Your task to perform on an android device: Search for the best lawnmowers on Lowes.com Image 0: 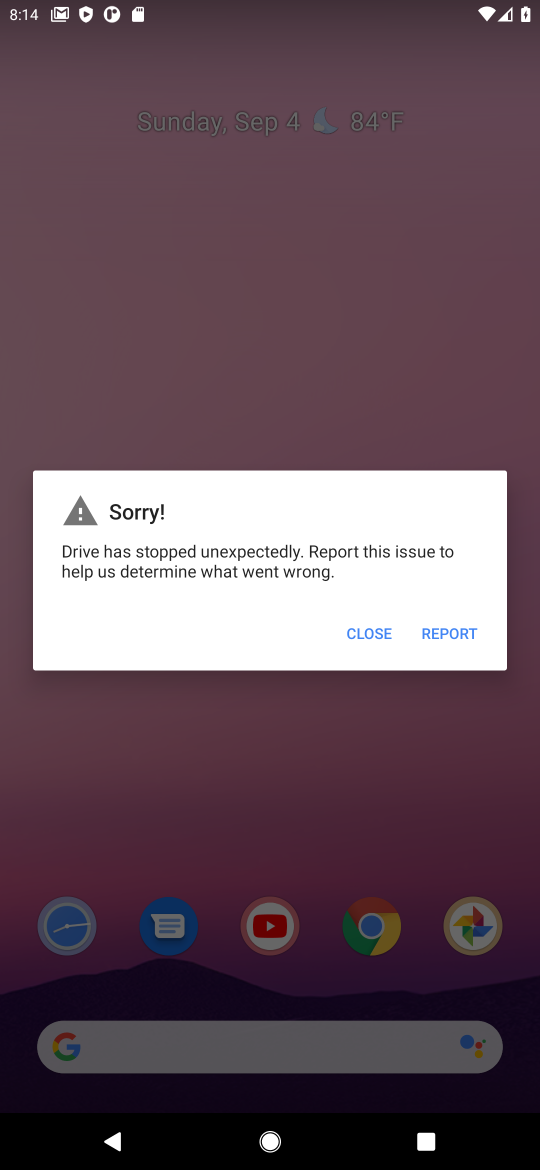
Step 0: press home button
Your task to perform on an android device: Search for the best lawnmowers on Lowes.com Image 1: 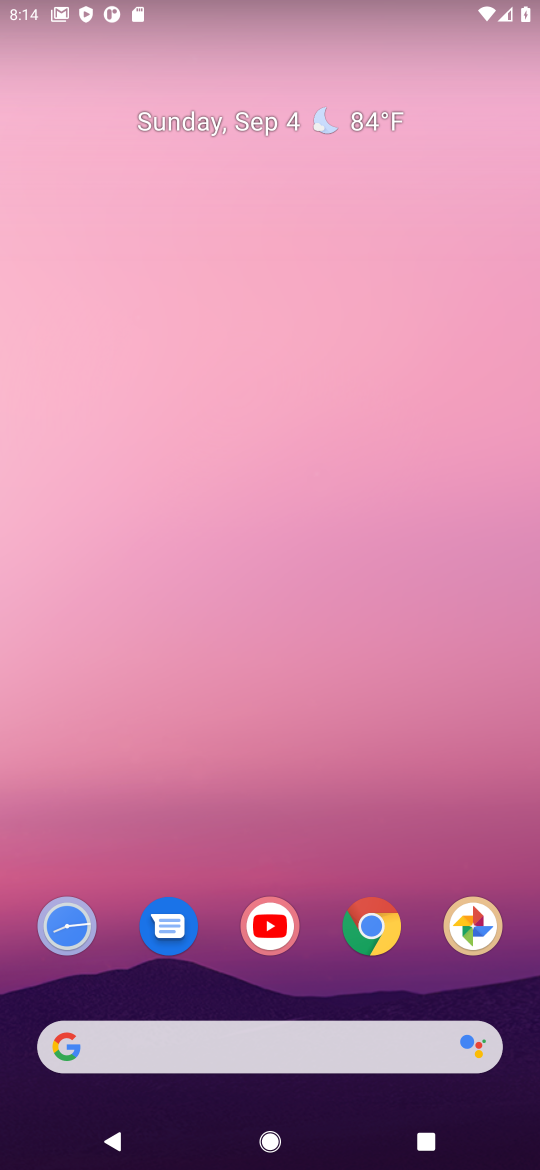
Step 1: click (202, 1054)
Your task to perform on an android device: Search for the best lawnmowers on Lowes.com Image 2: 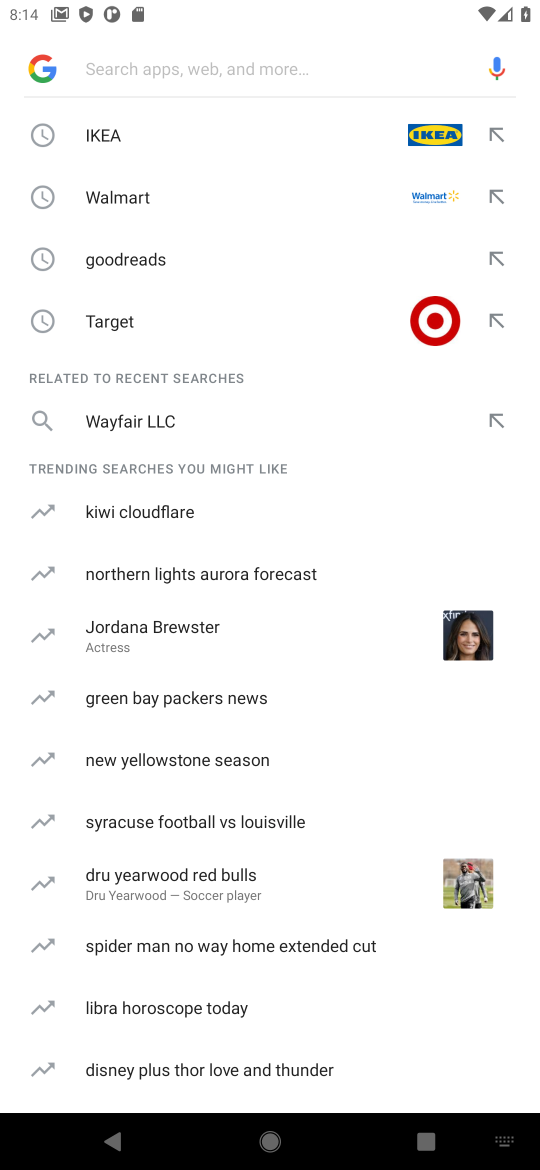
Step 2: type "lowes.com"
Your task to perform on an android device: Search for the best lawnmowers on Lowes.com Image 3: 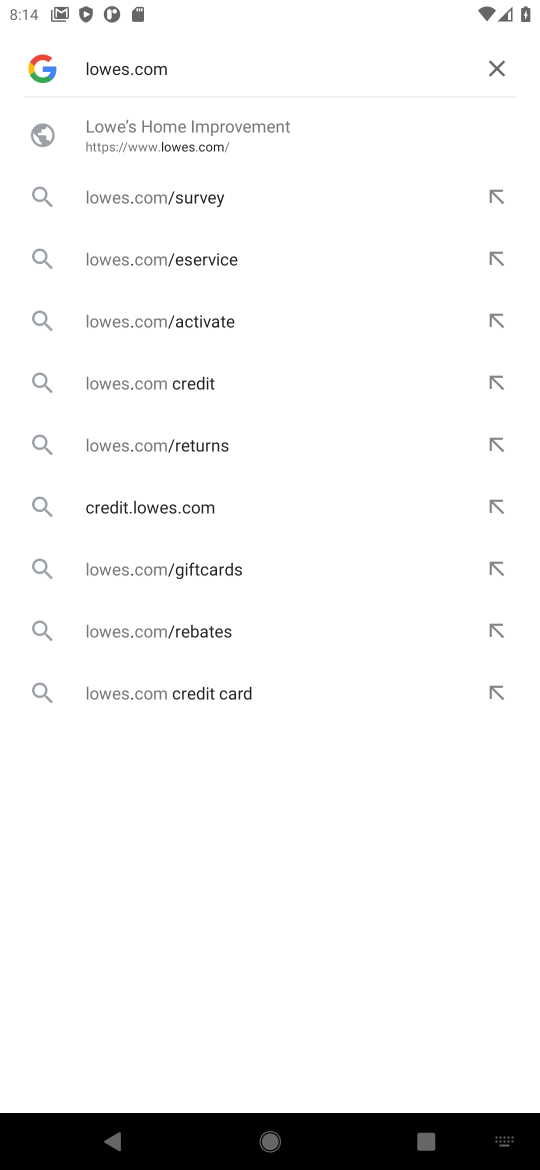
Step 3: click (185, 128)
Your task to perform on an android device: Search for the best lawnmowers on Lowes.com Image 4: 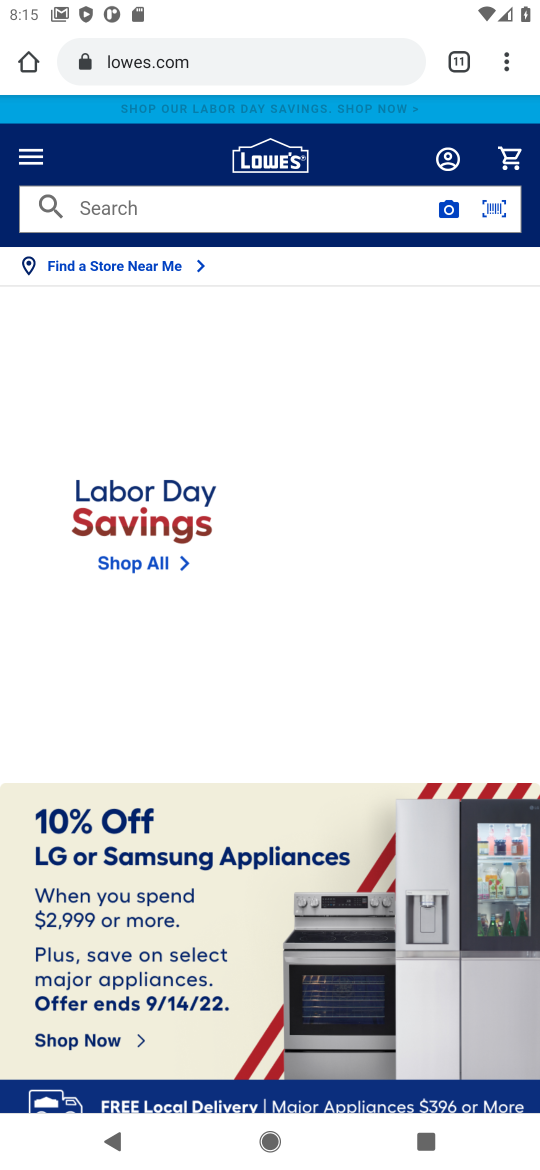
Step 4: click (179, 208)
Your task to perform on an android device: Search for the best lawnmowers on Lowes.com Image 5: 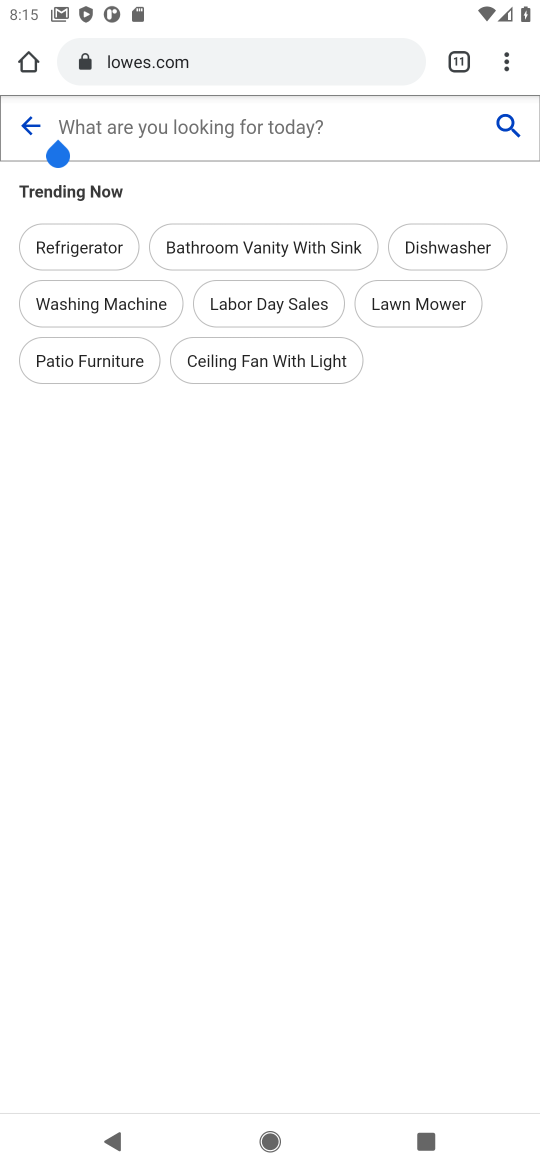
Step 5: type "best lawnmowers"
Your task to perform on an android device: Search for the best lawnmowers on Lowes.com Image 6: 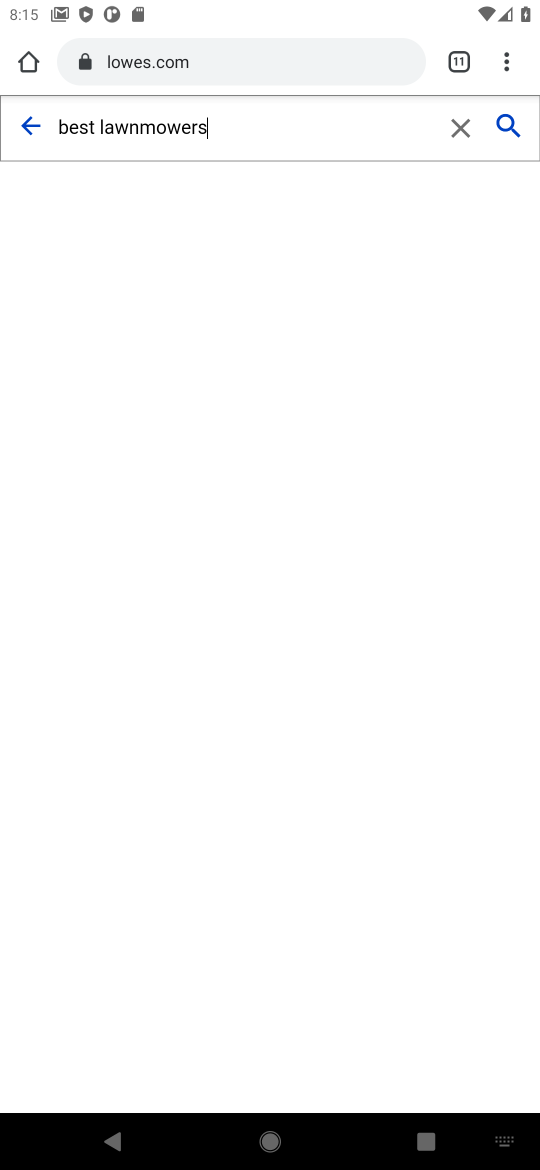
Step 6: click (498, 121)
Your task to perform on an android device: Search for the best lawnmowers on Lowes.com Image 7: 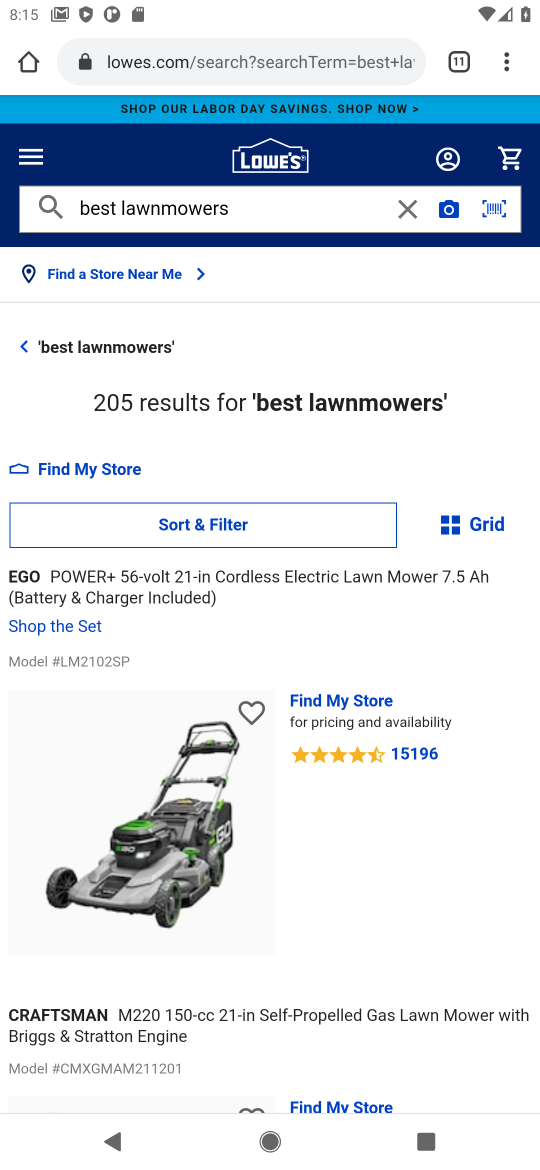
Step 7: task complete